Your task to perform on an android device: Is it going to rain tomorrow? Image 0: 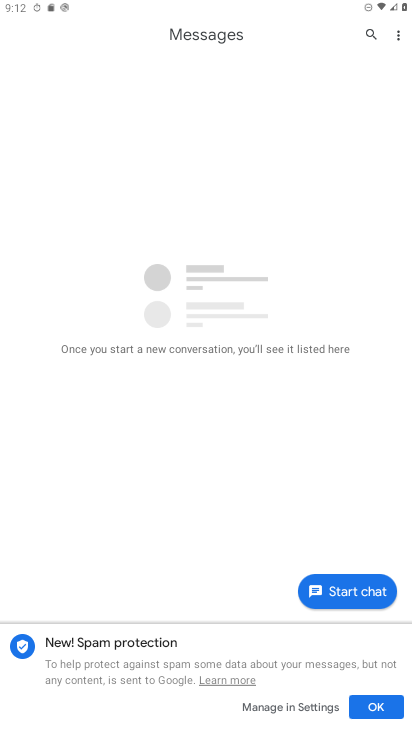
Step 0: press home button
Your task to perform on an android device: Is it going to rain tomorrow? Image 1: 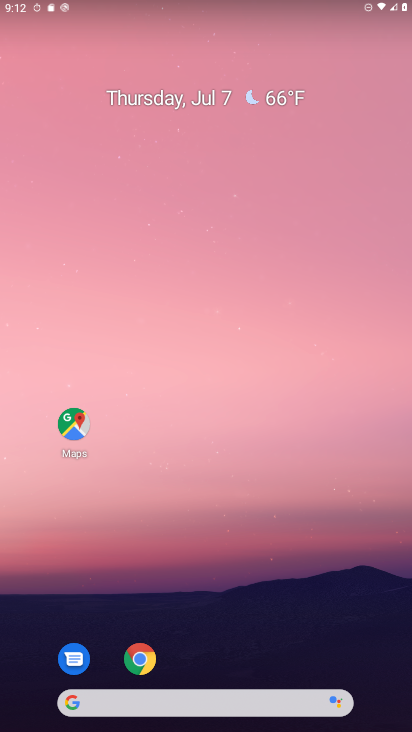
Step 1: drag from (399, 697) to (266, 2)
Your task to perform on an android device: Is it going to rain tomorrow? Image 2: 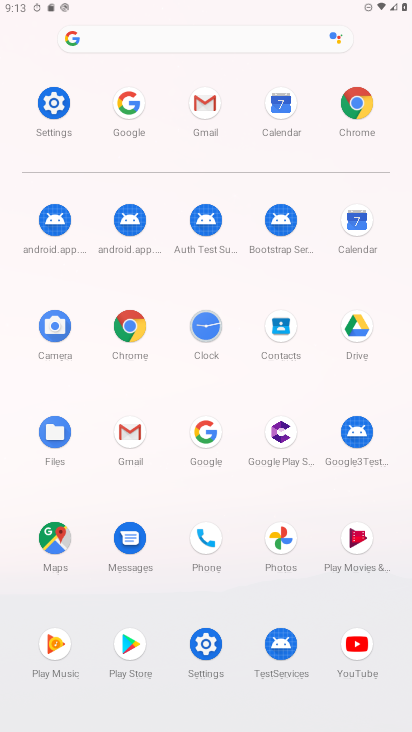
Step 2: click (206, 449)
Your task to perform on an android device: Is it going to rain tomorrow? Image 3: 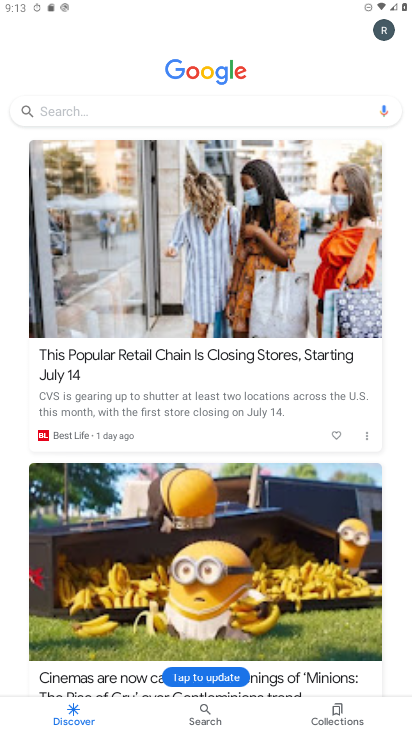
Step 3: click (147, 106)
Your task to perform on an android device: Is it going to rain tomorrow? Image 4: 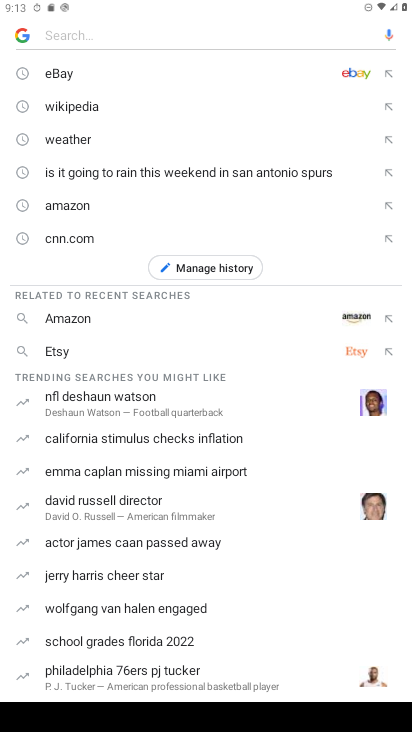
Step 4: type "Is it going to rain tomorrow?"
Your task to perform on an android device: Is it going to rain tomorrow? Image 5: 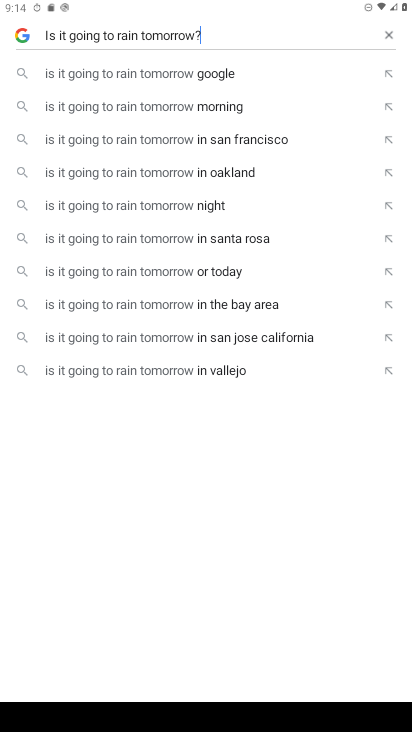
Step 5: click (134, 76)
Your task to perform on an android device: Is it going to rain tomorrow? Image 6: 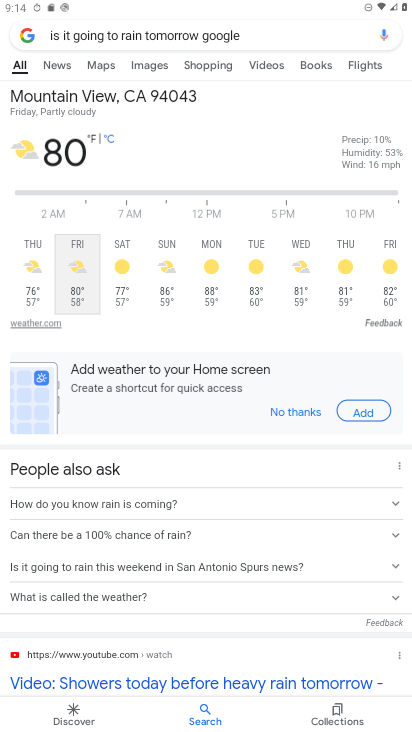
Step 6: task complete